Your task to perform on an android device: Open Amazon Image 0: 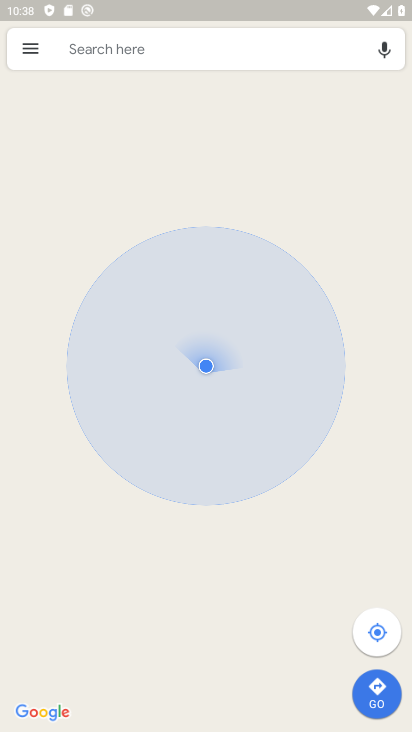
Step 0: press home button
Your task to perform on an android device: Open Amazon Image 1: 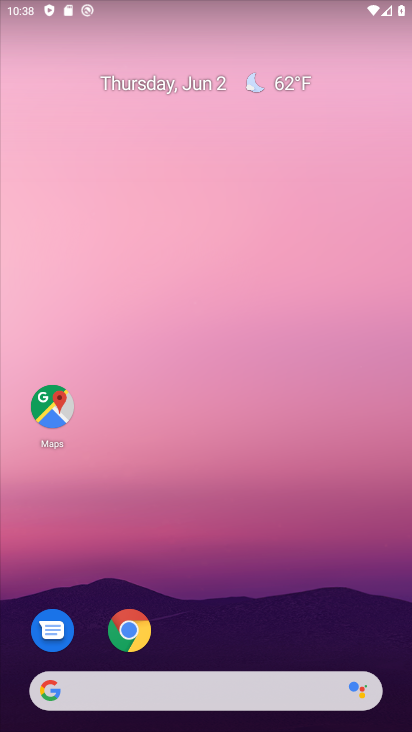
Step 1: click (131, 628)
Your task to perform on an android device: Open Amazon Image 2: 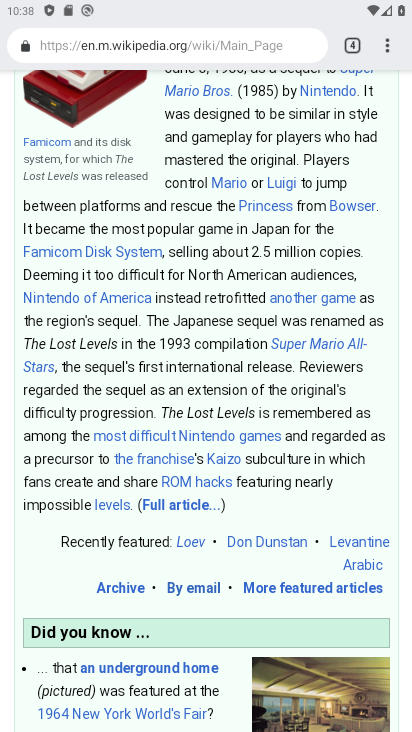
Step 2: drag from (336, 126) to (284, 499)
Your task to perform on an android device: Open Amazon Image 3: 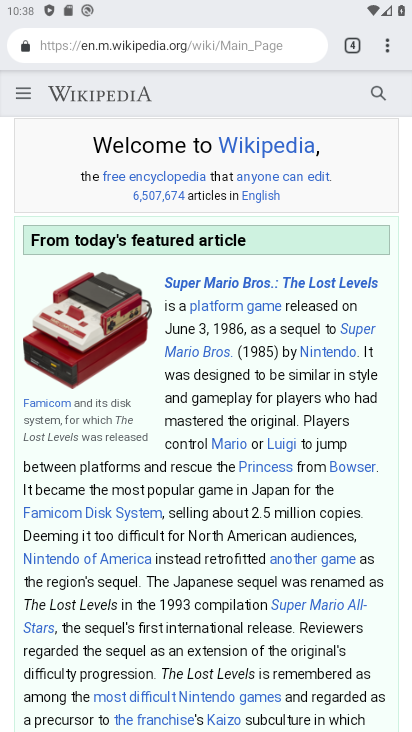
Step 3: drag from (387, 42) to (235, 96)
Your task to perform on an android device: Open Amazon Image 4: 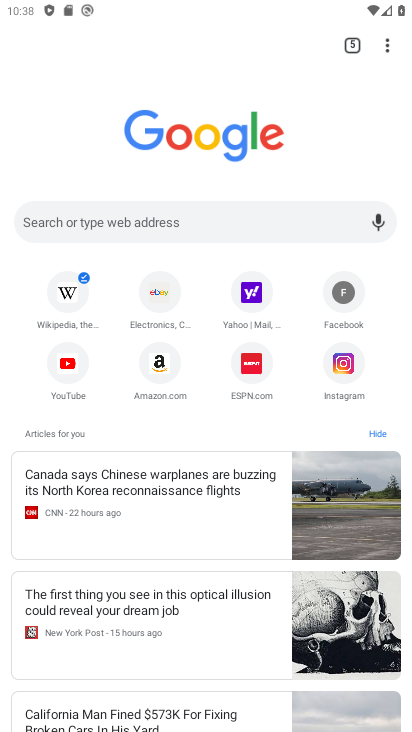
Step 4: click (159, 369)
Your task to perform on an android device: Open Amazon Image 5: 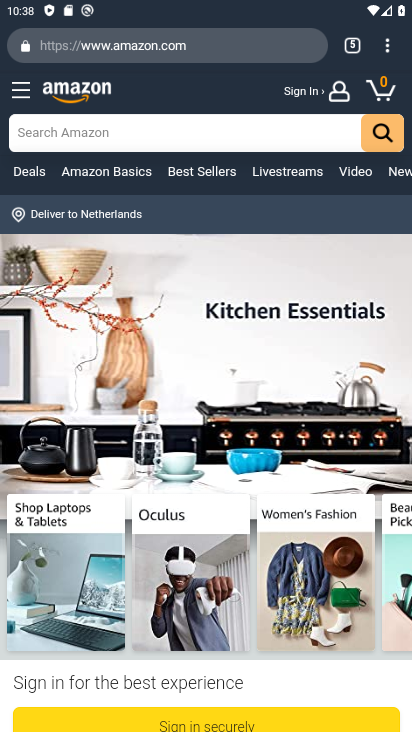
Step 5: task complete